Your task to perform on an android device: stop showing notifications on the lock screen Image 0: 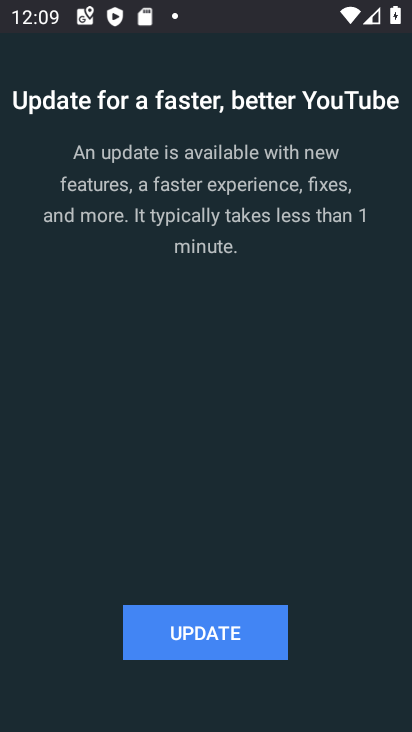
Step 0: press home button
Your task to perform on an android device: stop showing notifications on the lock screen Image 1: 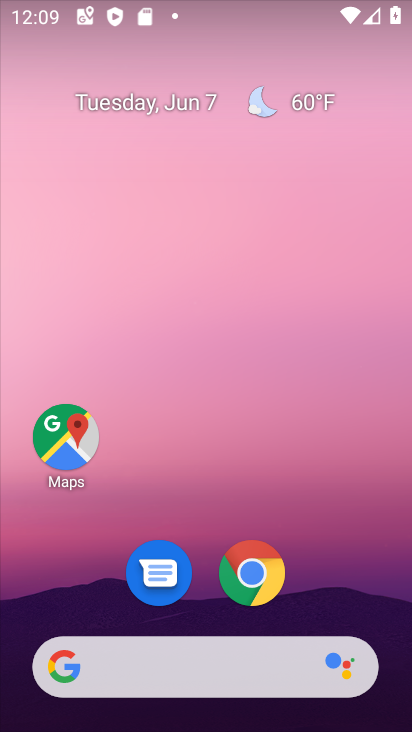
Step 1: drag from (353, 589) to (268, 118)
Your task to perform on an android device: stop showing notifications on the lock screen Image 2: 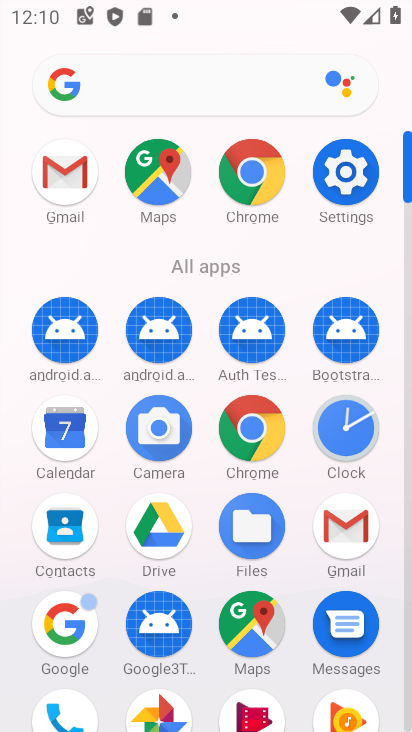
Step 2: click (334, 176)
Your task to perform on an android device: stop showing notifications on the lock screen Image 3: 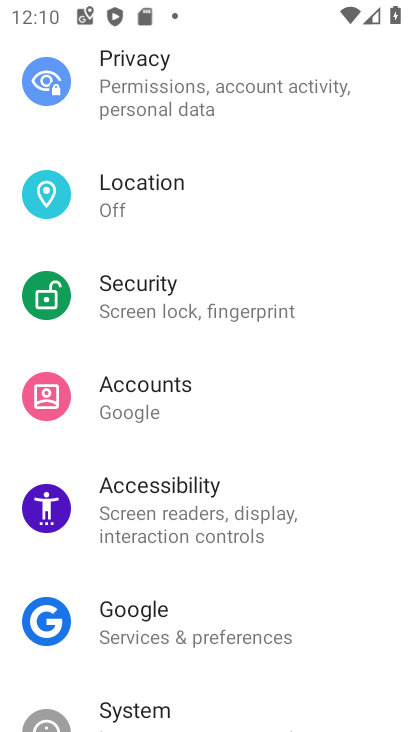
Step 3: click (268, 212)
Your task to perform on an android device: stop showing notifications on the lock screen Image 4: 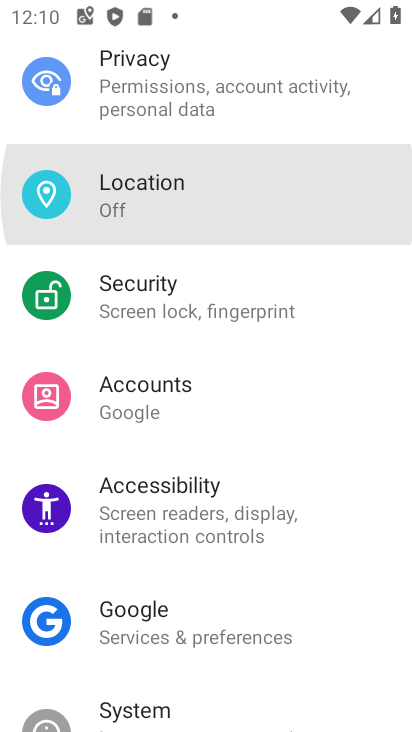
Step 4: drag from (268, 212) to (234, 516)
Your task to perform on an android device: stop showing notifications on the lock screen Image 5: 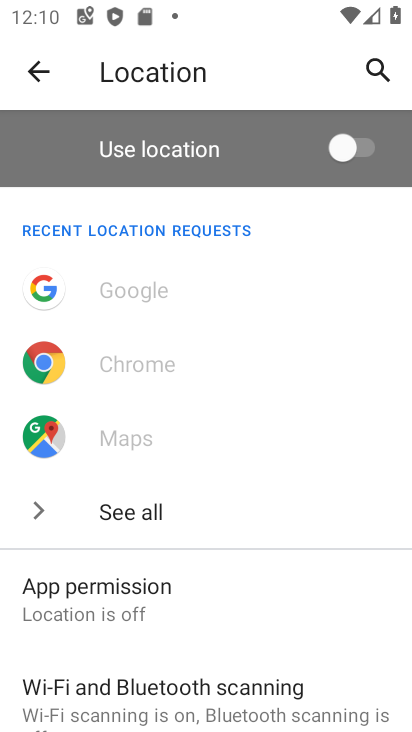
Step 5: drag from (245, 604) to (229, 349)
Your task to perform on an android device: stop showing notifications on the lock screen Image 6: 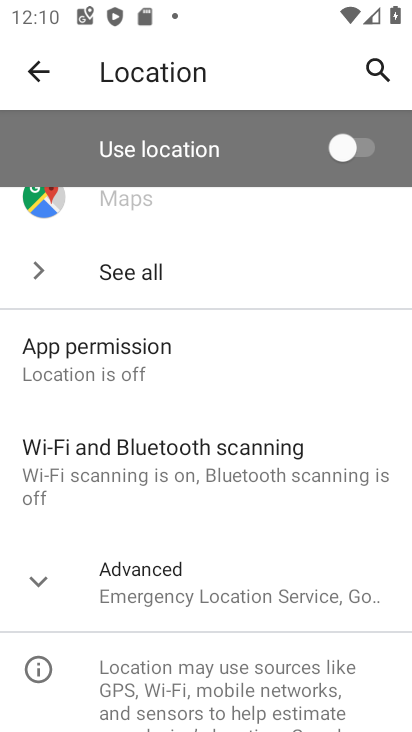
Step 6: click (35, 59)
Your task to perform on an android device: stop showing notifications on the lock screen Image 7: 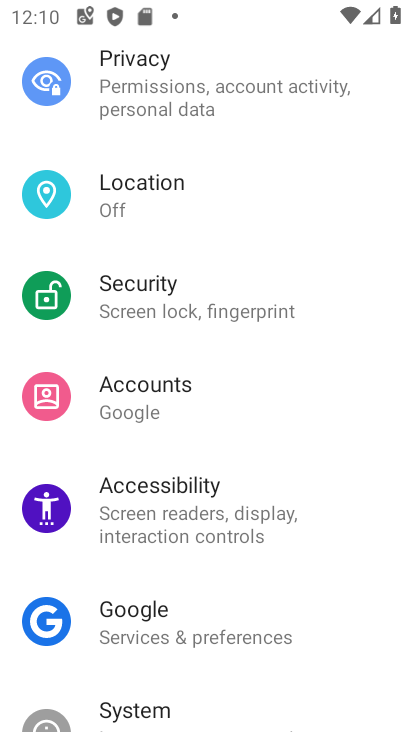
Step 7: drag from (212, 143) to (193, 571)
Your task to perform on an android device: stop showing notifications on the lock screen Image 8: 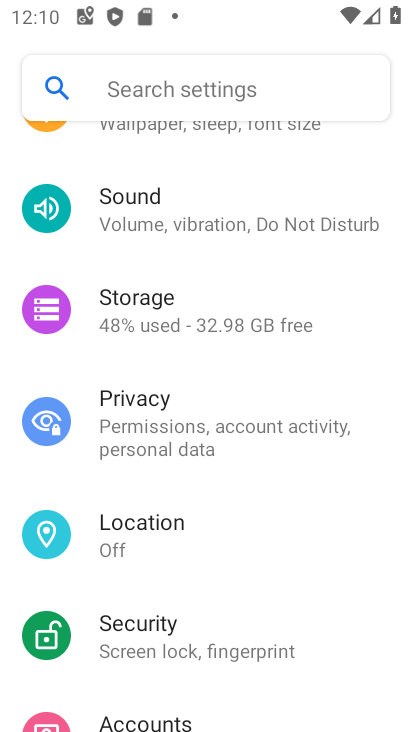
Step 8: drag from (154, 222) to (139, 467)
Your task to perform on an android device: stop showing notifications on the lock screen Image 9: 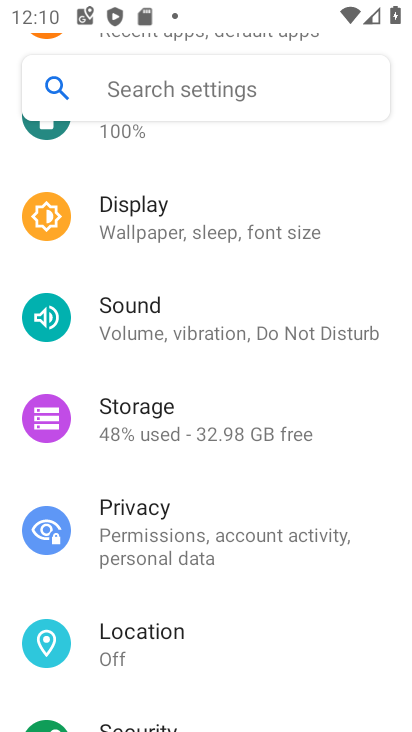
Step 9: drag from (232, 159) to (216, 333)
Your task to perform on an android device: stop showing notifications on the lock screen Image 10: 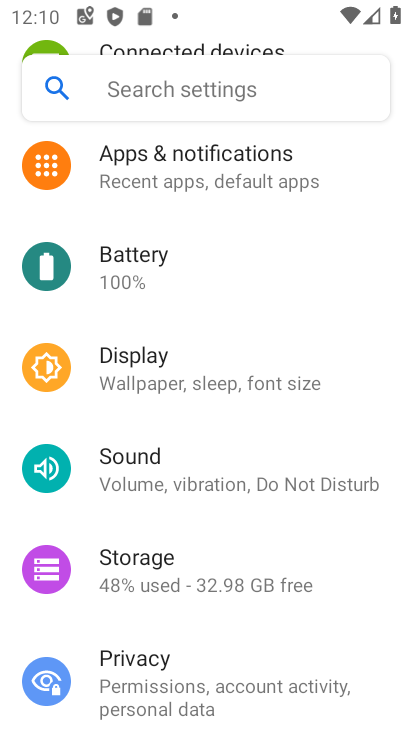
Step 10: click (201, 188)
Your task to perform on an android device: stop showing notifications on the lock screen Image 11: 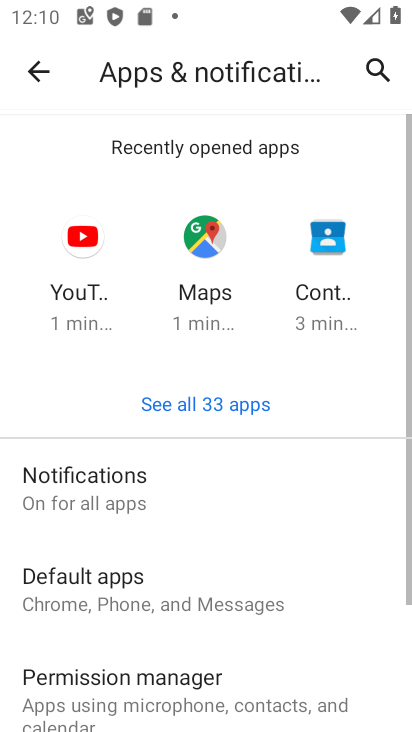
Step 11: click (100, 513)
Your task to perform on an android device: stop showing notifications on the lock screen Image 12: 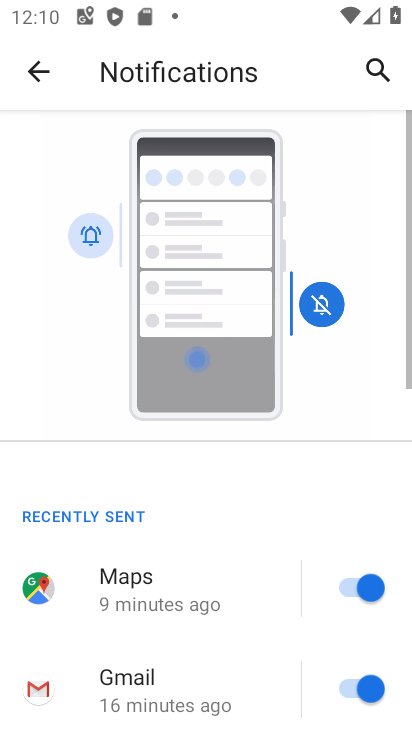
Step 12: drag from (207, 656) to (89, 271)
Your task to perform on an android device: stop showing notifications on the lock screen Image 13: 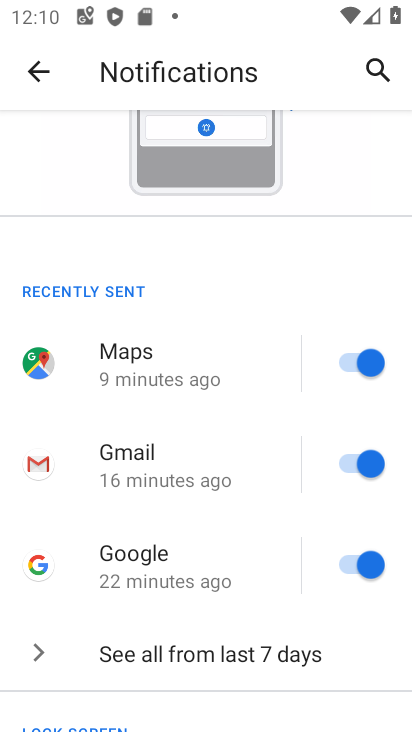
Step 13: drag from (260, 654) to (160, 243)
Your task to perform on an android device: stop showing notifications on the lock screen Image 14: 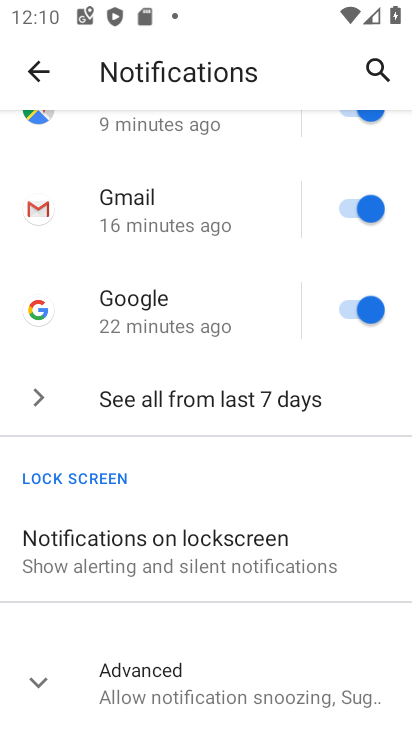
Step 14: click (188, 537)
Your task to perform on an android device: stop showing notifications on the lock screen Image 15: 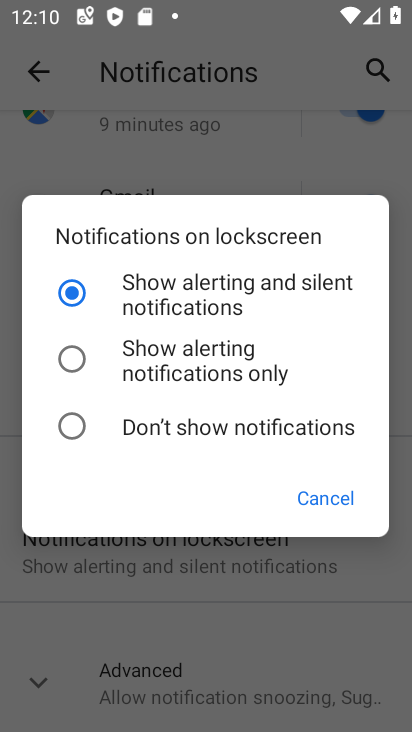
Step 15: click (182, 433)
Your task to perform on an android device: stop showing notifications on the lock screen Image 16: 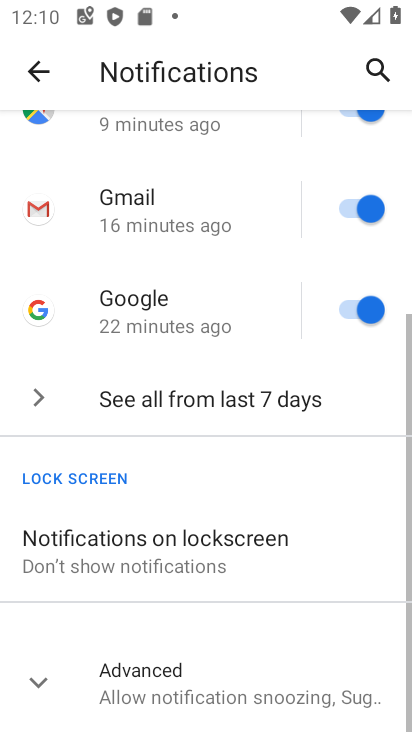
Step 16: task complete